Your task to perform on an android device: When is my next appointment? Image 0: 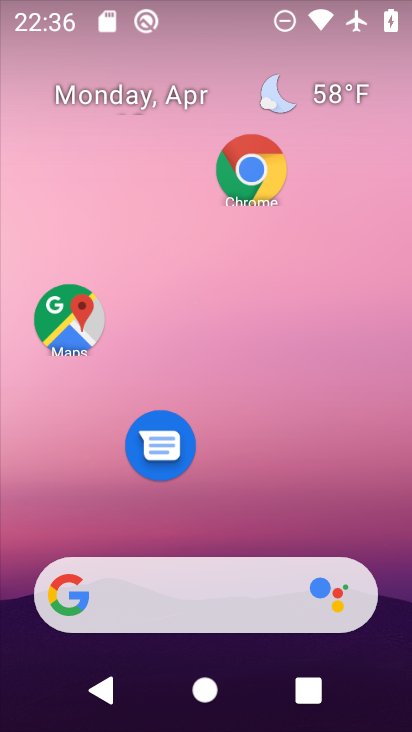
Step 0: drag from (244, 513) to (258, 112)
Your task to perform on an android device: When is my next appointment? Image 1: 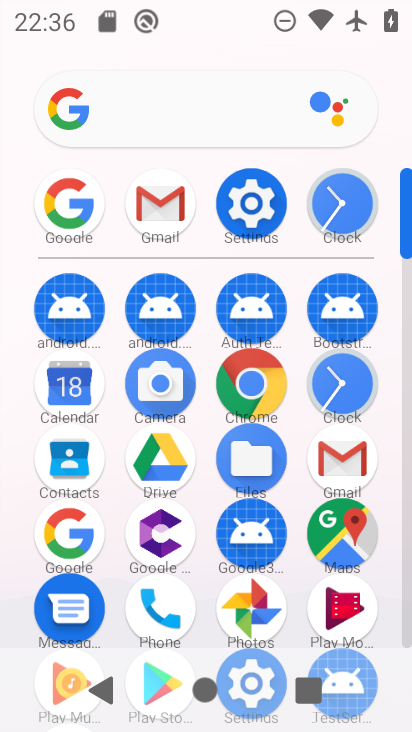
Step 1: click (85, 390)
Your task to perform on an android device: When is my next appointment? Image 2: 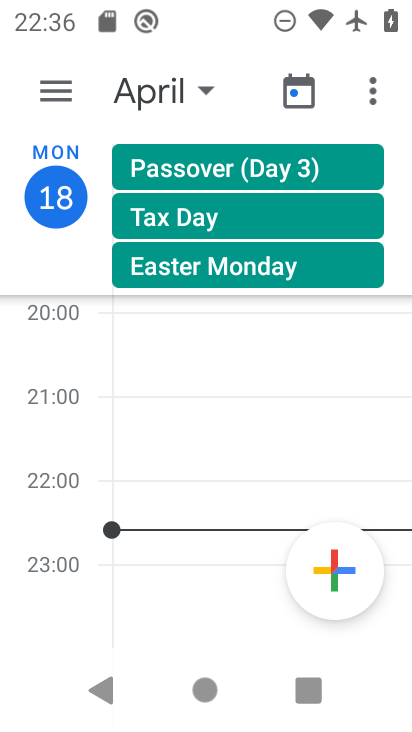
Step 2: click (207, 91)
Your task to perform on an android device: When is my next appointment? Image 3: 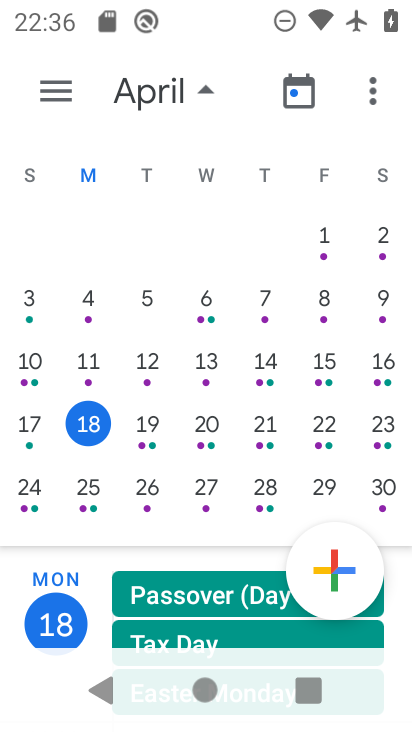
Step 3: click (161, 423)
Your task to perform on an android device: When is my next appointment? Image 4: 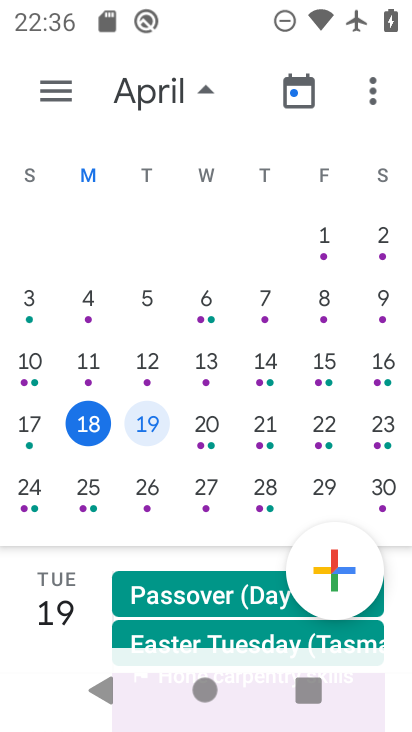
Step 4: drag from (216, 552) to (206, 382)
Your task to perform on an android device: When is my next appointment? Image 5: 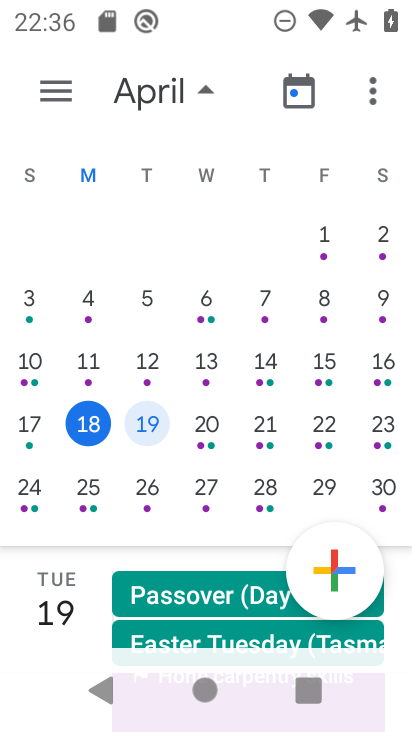
Step 5: drag from (214, 249) to (220, 434)
Your task to perform on an android device: When is my next appointment? Image 6: 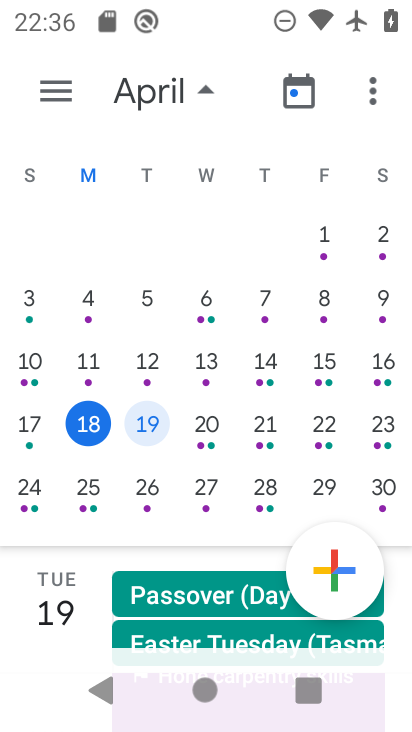
Step 6: click (204, 434)
Your task to perform on an android device: When is my next appointment? Image 7: 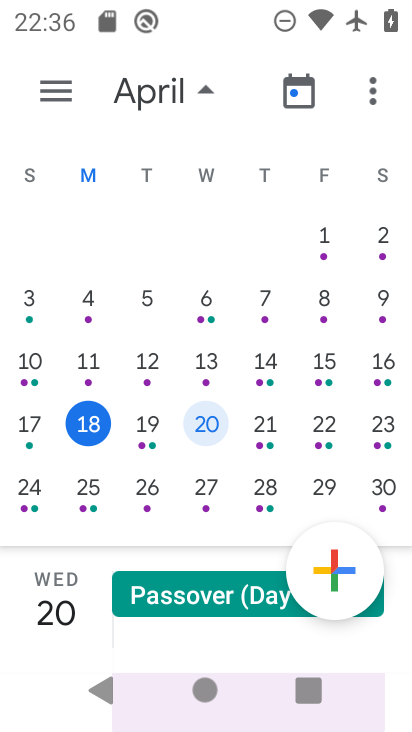
Step 7: drag from (246, 534) to (287, 246)
Your task to perform on an android device: When is my next appointment? Image 8: 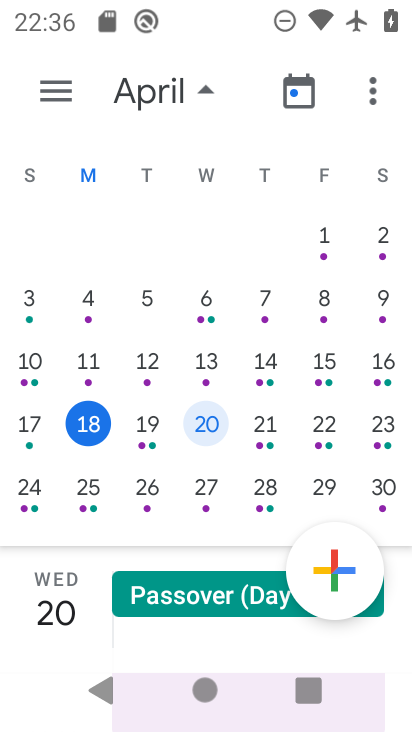
Step 8: click (272, 434)
Your task to perform on an android device: When is my next appointment? Image 9: 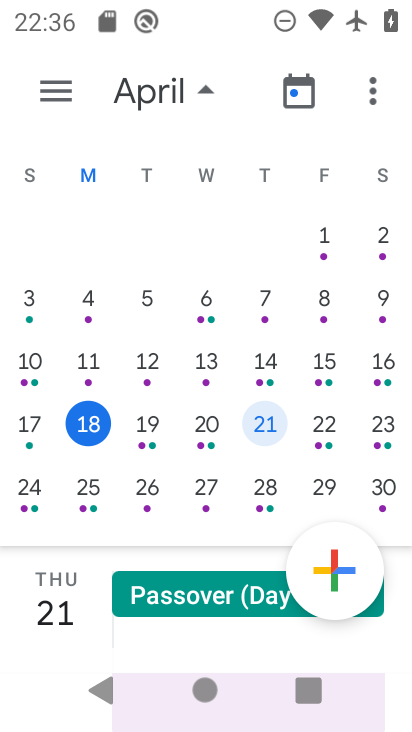
Step 9: click (320, 434)
Your task to perform on an android device: When is my next appointment? Image 10: 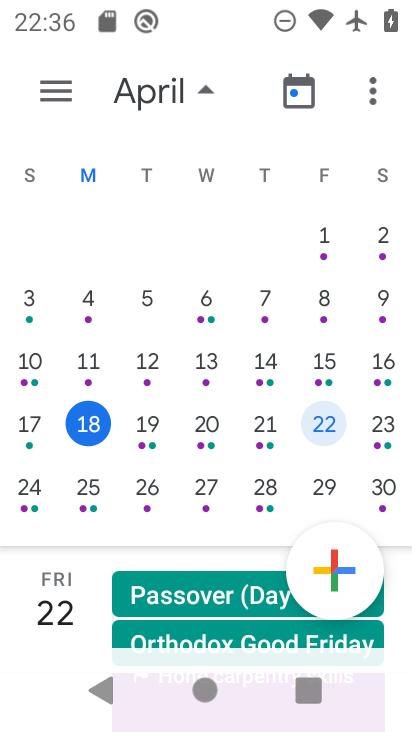
Step 10: task complete